Your task to perform on an android device: refresh tabs in the chrome app Image 0: 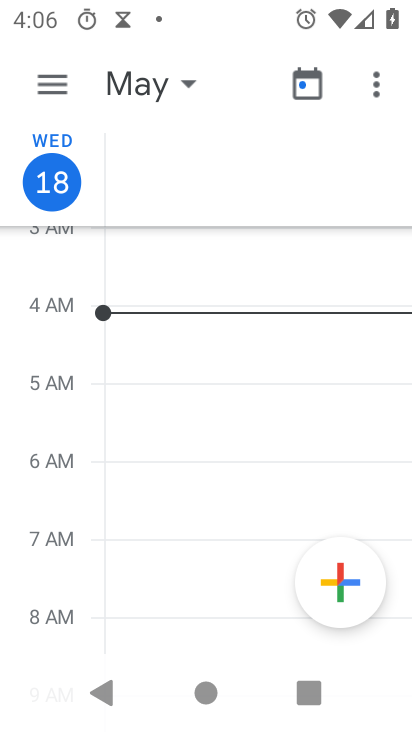
Step 0: press home button
Your task to perform on an android device: refresh tabs in the chrome app Image 1: 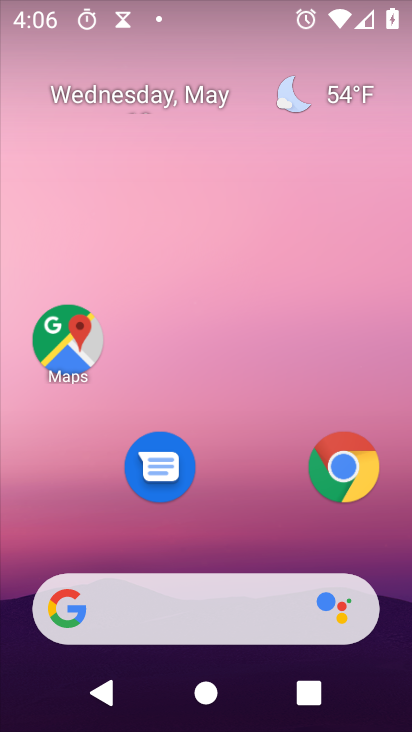
Step 1: click (354, 496)
Your task to perform on an android device: refresh tabs in the chrome app Image 2: 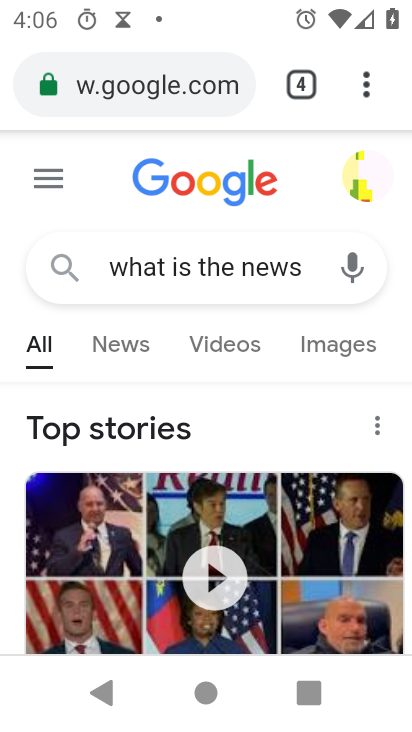
Step 2: click (379, 86)
Your task to perform on an android device: refresh tabs in the chrome app Image 3: 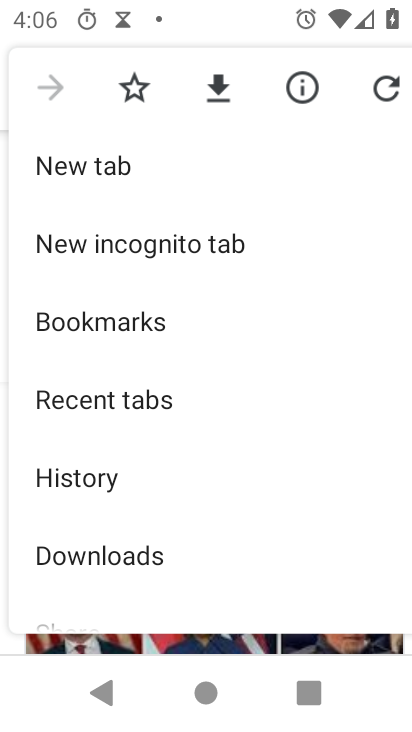
Step 3: drag from (240, 532) to (203, 359)
Your task to perform on an android device: refresh tabs in the chrome app Image 4: 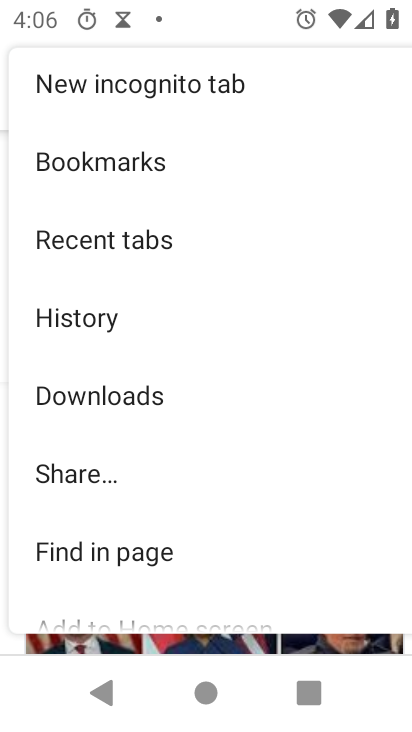
Step 4: drag from (215, 192) to (197, 725)
Your task to perform on an android device: refresh tabs in the chrome app Image 5: 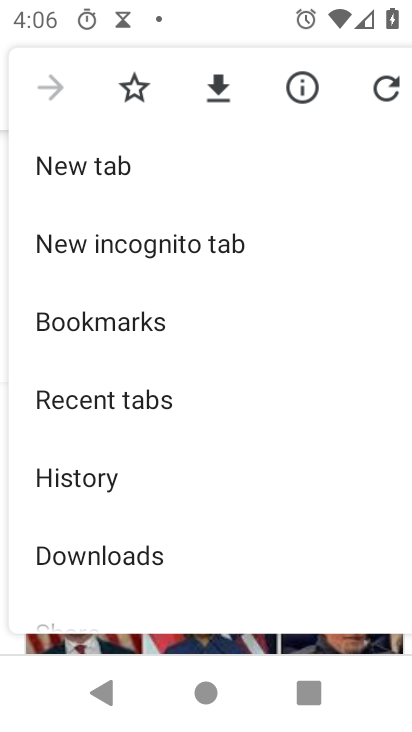
Step 5: click (392, 76)
Your task to perform on an android device: refresh tabs in the chrome app Image 6: 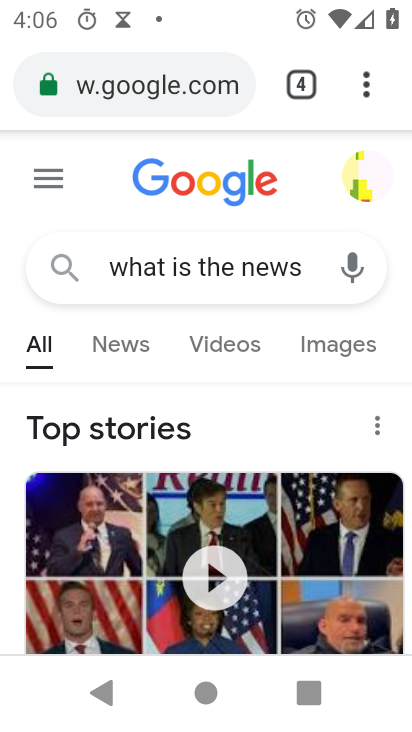
Step 6: task complete